Your task to perform on an android device: Open Chrome and go to settings Image 0: 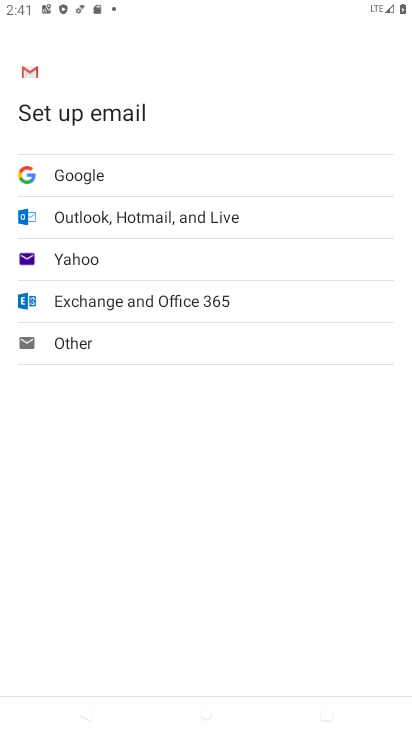
Step 0: press home button
Your task to perform on an android device: Open Chrome and go to settings Image 1: 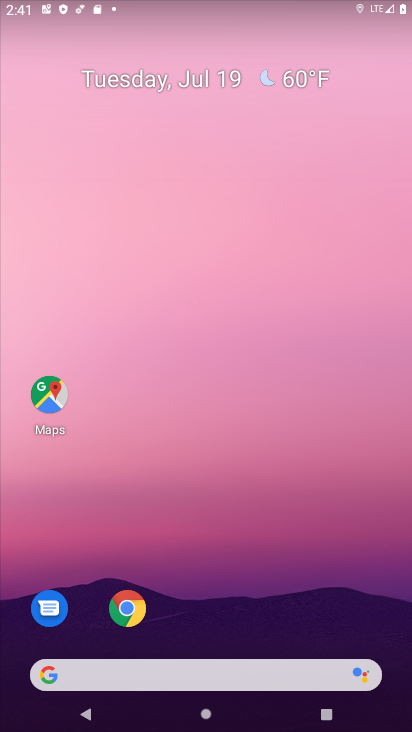
Step 1: drag from (232, 596) to (245, 18)
Your task to perform on an android device: Open Chrome and go to settings Image 2: 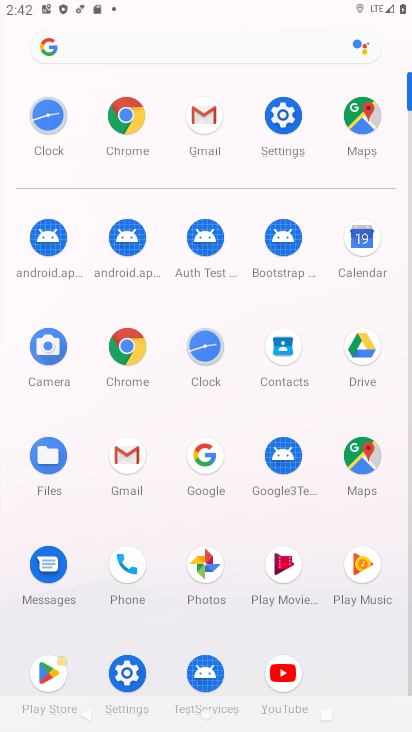
Step 2: click (125, 111)
Your task to perform on an android device: Open Chrome and go to settings Image 3: 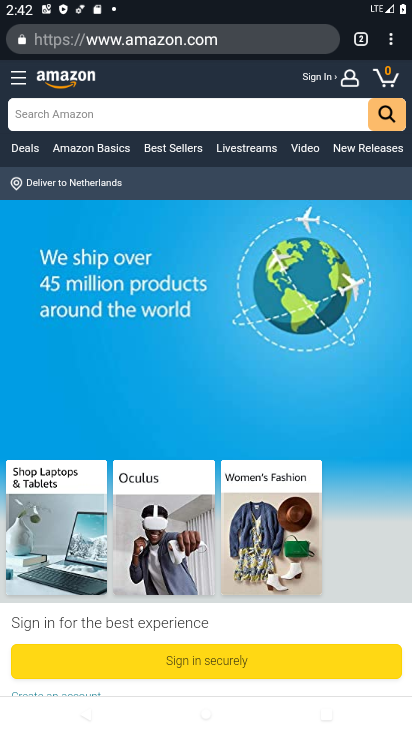
Step 3: task complete